Your task to perform on an android device: turn on notifications settings in the gmail app Image 0: 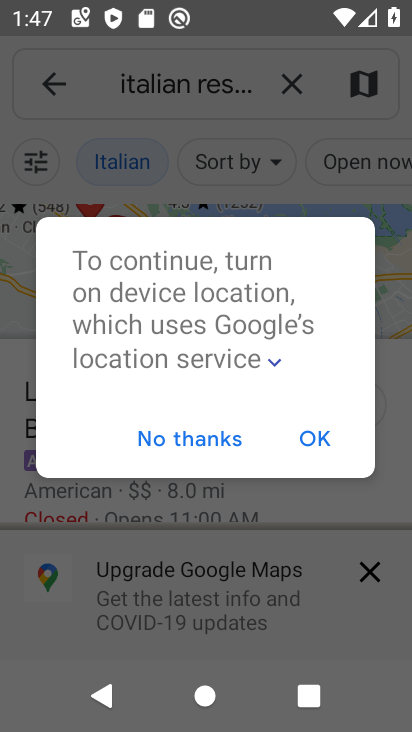
Step 0: press home button
Your task to perform on an android device: turn on notifications settings in the gmail app Image 1: 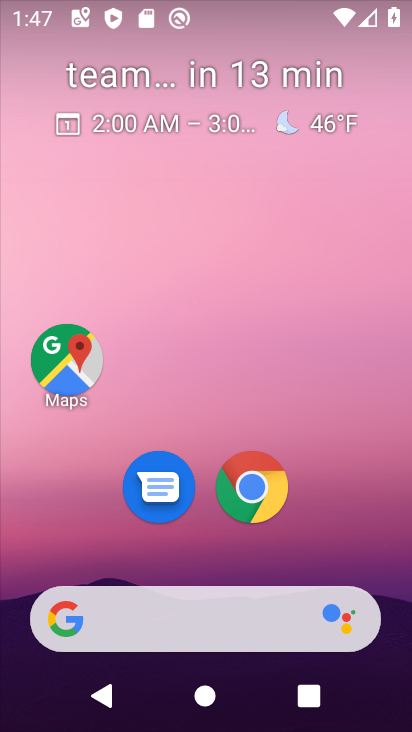
Step 1: drag from (346, 472) to (268, 22)
Your task to perform on an android device: turn on notifications settings in the gmail app Image 2: 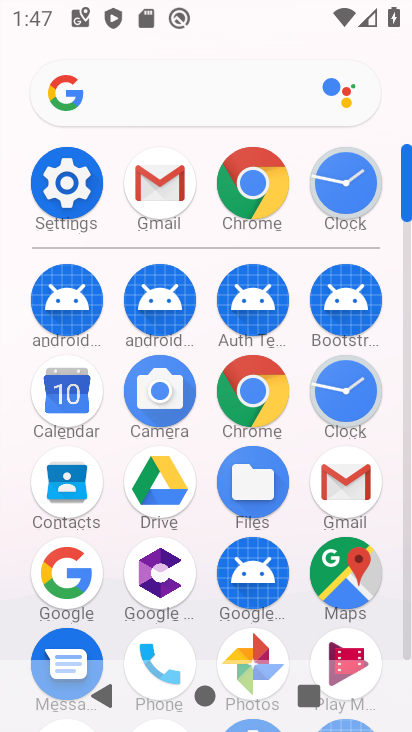
Step 2: click (345, 487)
Your task to perform on an android device: turn on notifications settings in the gmail app Image 3: 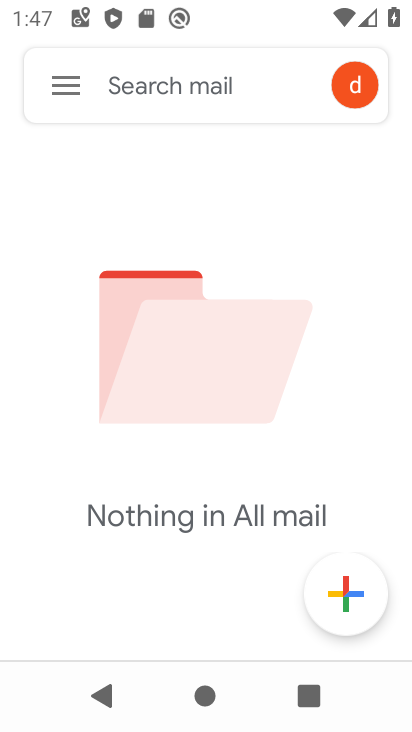
Step 3: click (74, 80)
Your task to perform on an android device: turn on notifications settings in the gmail app Image 4: 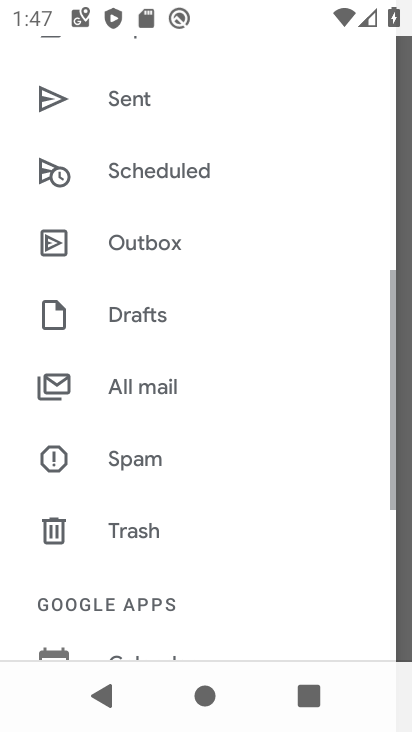
Step 4: drag from (217, 560) to (252, 80)
Your task to perform on an android device: turn on notifications settings in the gmail app Image 5: 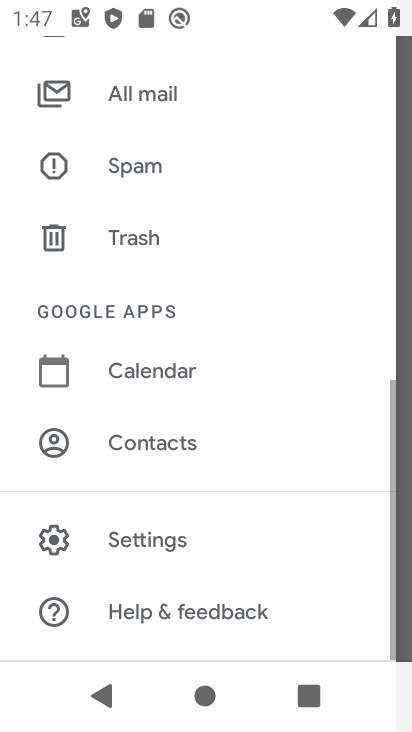
Step 5: click (172, 544)
Your task to perform on an android device: turn on notifications settings in the gmail app Image 6: 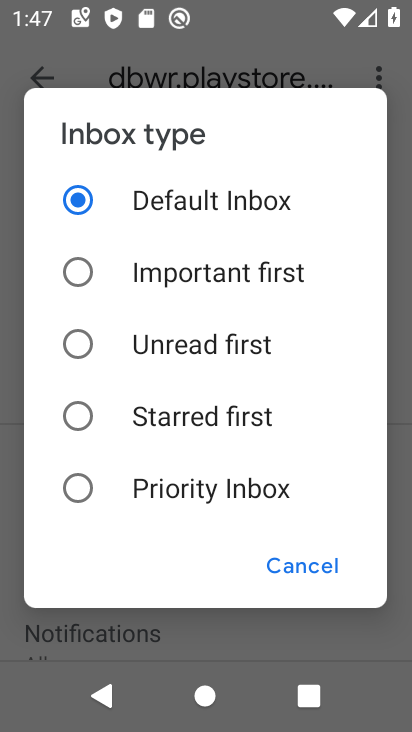
Step 6: click (315, 566)
Your task to perform on an android device: turn on notifications settings in the gmail app Image 7: 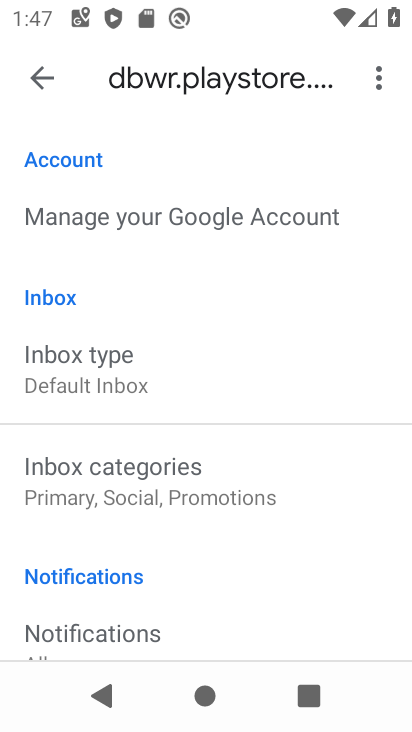
Step 7: drag from (240, 579) to (275, 262)
Your task to perform on an android device: turn on notifications settings in the gmail app Image 8: 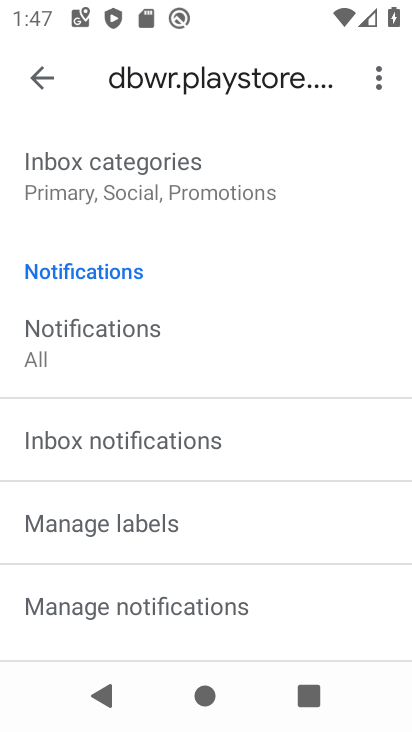
Step 8: click (157, 617)
Your task to perform on an android device: turn on notifications settings in the gmail app Image 9: 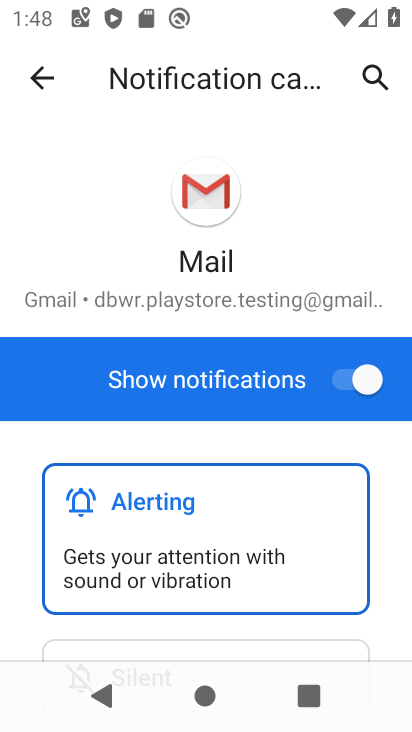
Step 9: task complete